Your task to perform on an android device: Clear the cart on bestbuy. Add sony triple a to the cart on bestbuy, then select checkout. Image 0: 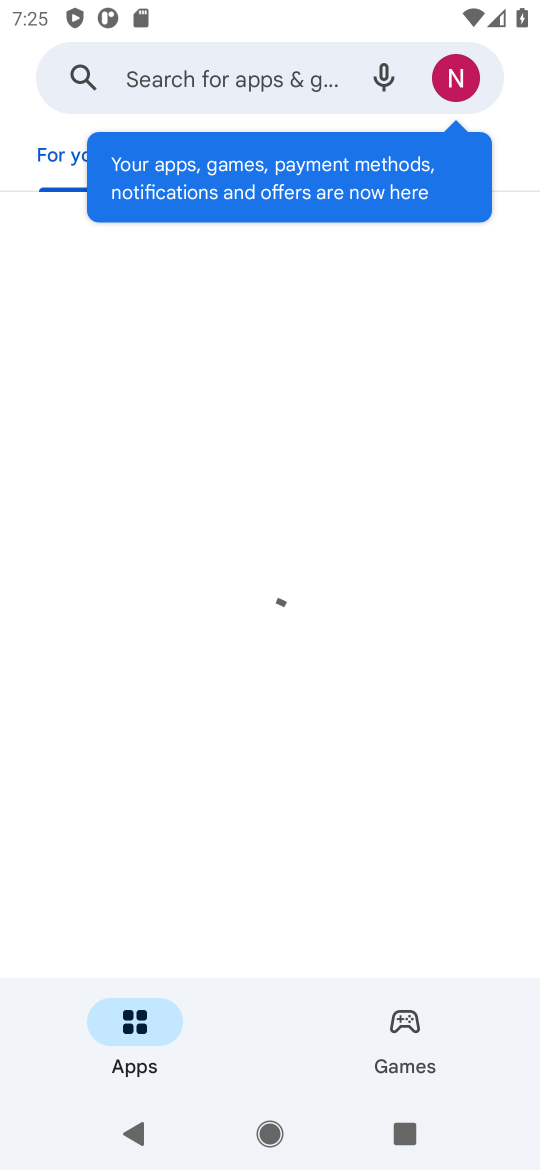
Step 0: press home button
Your task to perform on an android device: Clear the cart on bestbuy. Add sony triple a to the cart on bestbuy, then select checkout. Image 1: 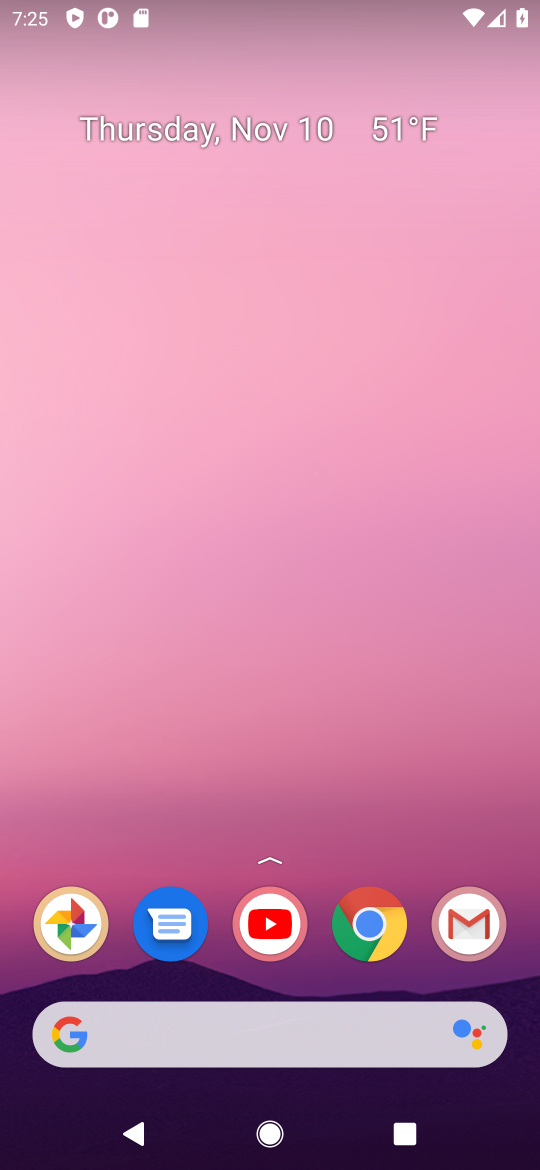
Step 1: click (367, 925)
Your task to perform on an android device: Clear the cart on bestbuy. Add sony triple a to the cart on bestbuy, then select checkout. Image 2: 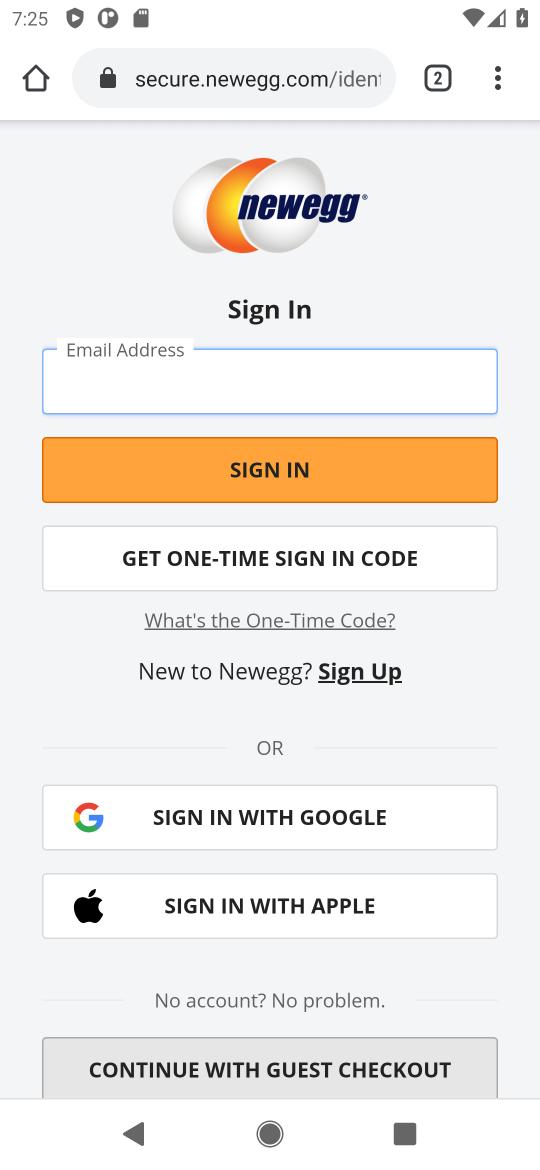
Step 2: click (228, 80)
Your task to perform on an android device: Clear the cart on bestbuy. Add sony triple a to the cart on bestbuy, then select checkout. Image 3: 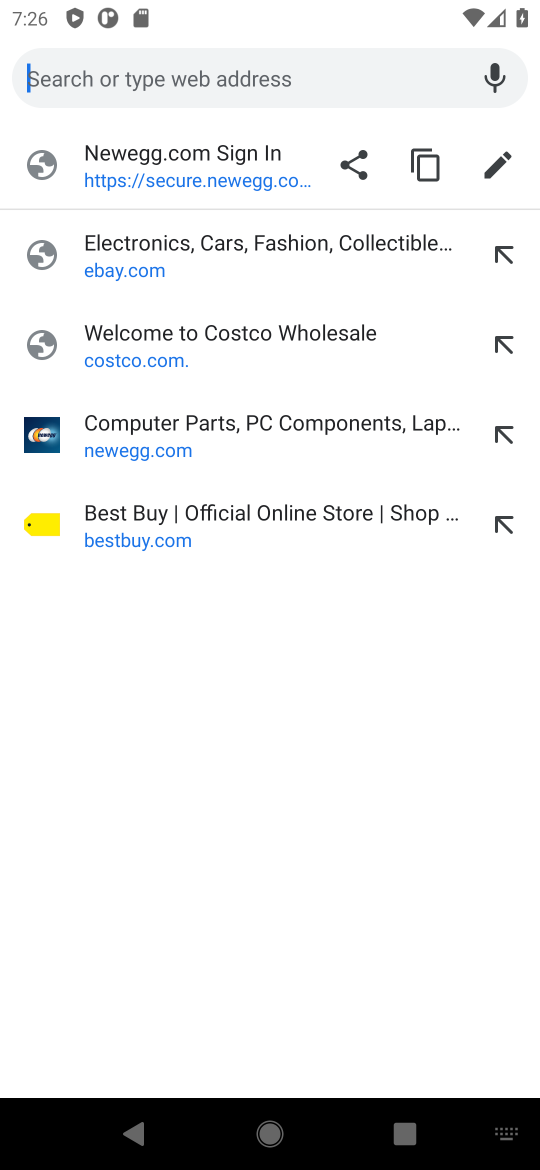
Step 3: click (147, 519)
Your task to perform on an android device: Clear the cart on bestbuy. Add sony triple a to the cart on bestbuy, then select checkout. Image 4: 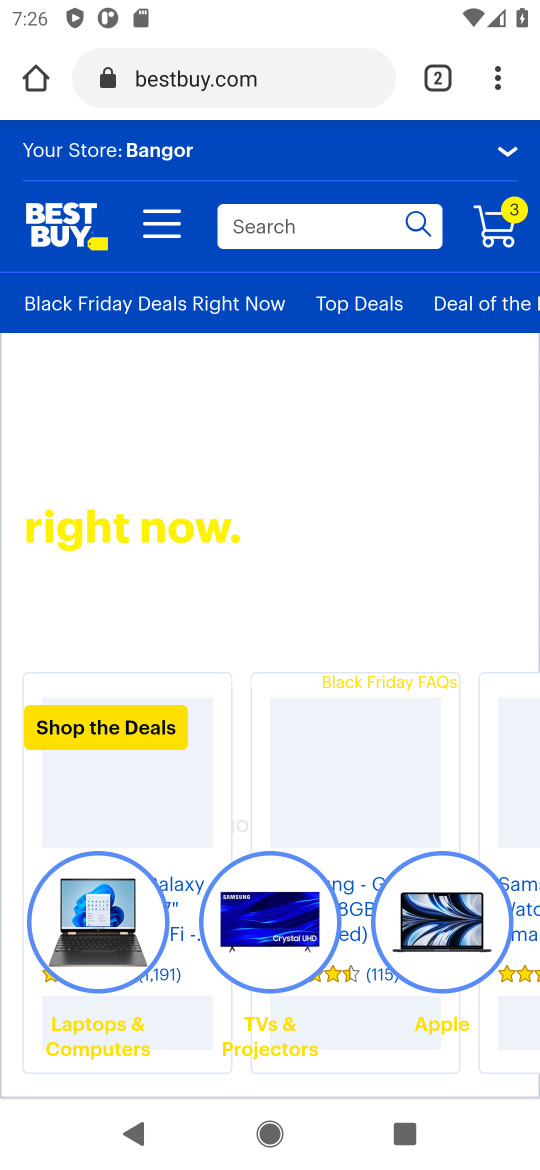
Step 4: click (502, 225)
Your task to perform on an android device: Clear the cart on bestbuy. Add sony triple a to the cart on bestbuy, then select checkout. Image 5: 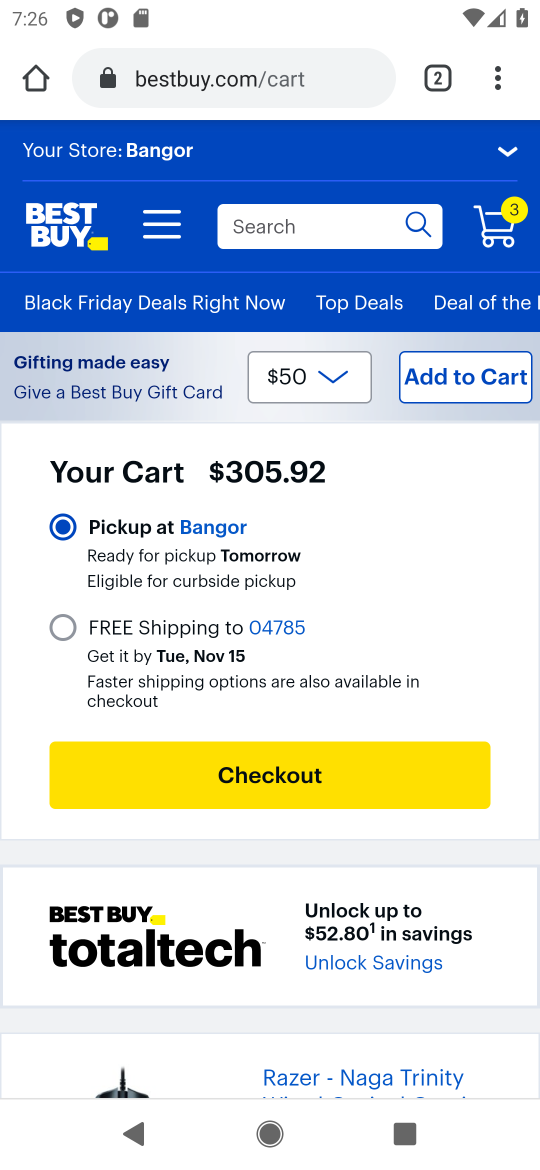
Step 5: drag from (493, 815) to (464, 344)
Your task to perform on an android device: Clear the cart on bestbuy. Add sony triple a to the cart on bestbuy, then select checkout. Image 6: 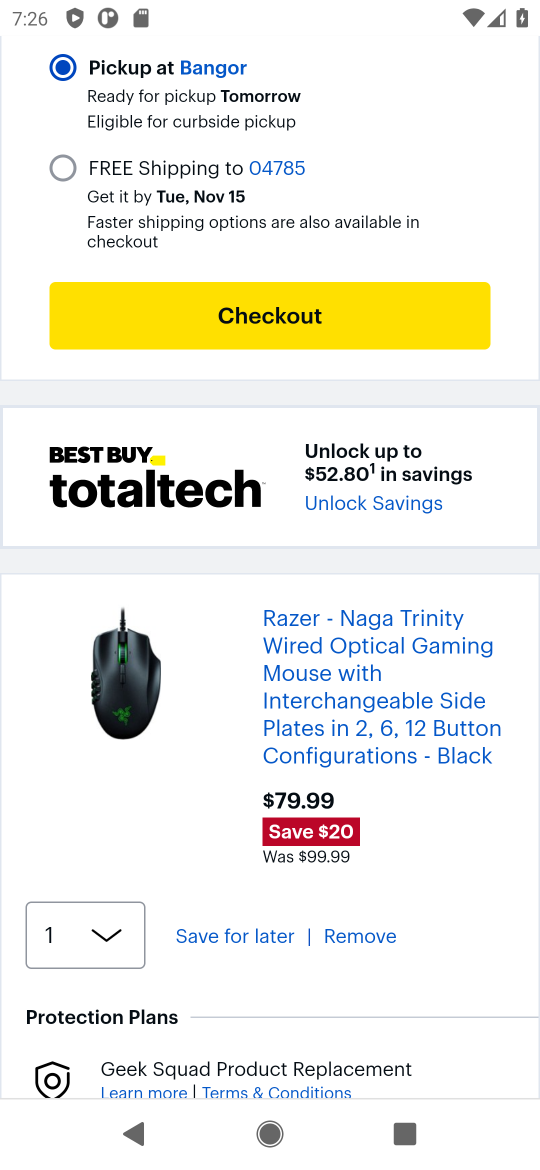
Step 6: click (341, 947)
Your task to perform on an android device: Clear the cart on bestbuy. Add sony triple a to the cart on bestbuy, then select checkout. Image 7: 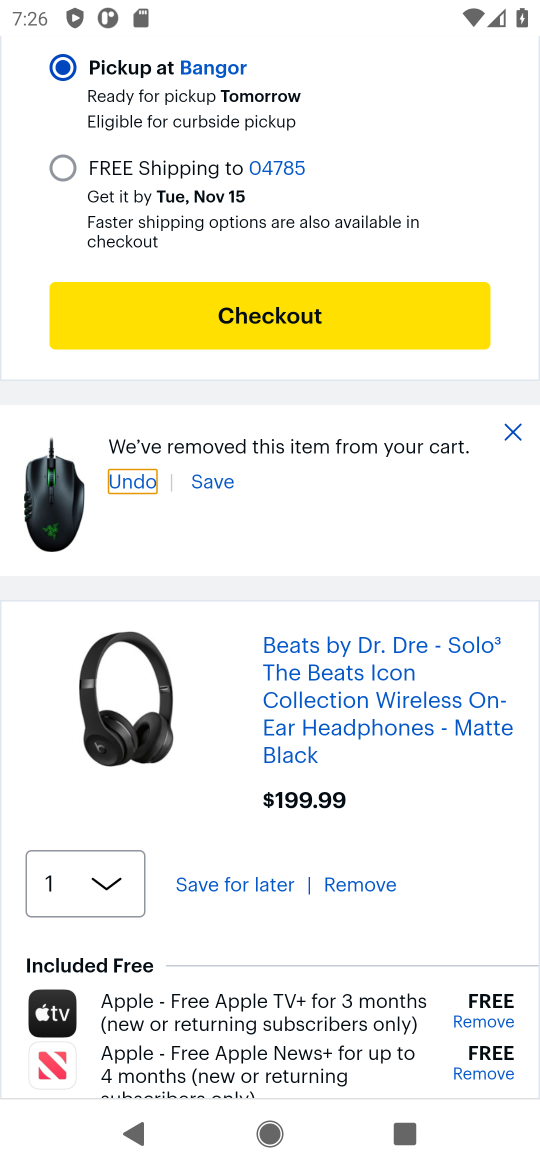
Step 7: click (343, 883)
Your task to perform on an android device: Clear the cart on bestbuy. Add sony triple a to the cart on bestbuy, then select checkout. Image 8: 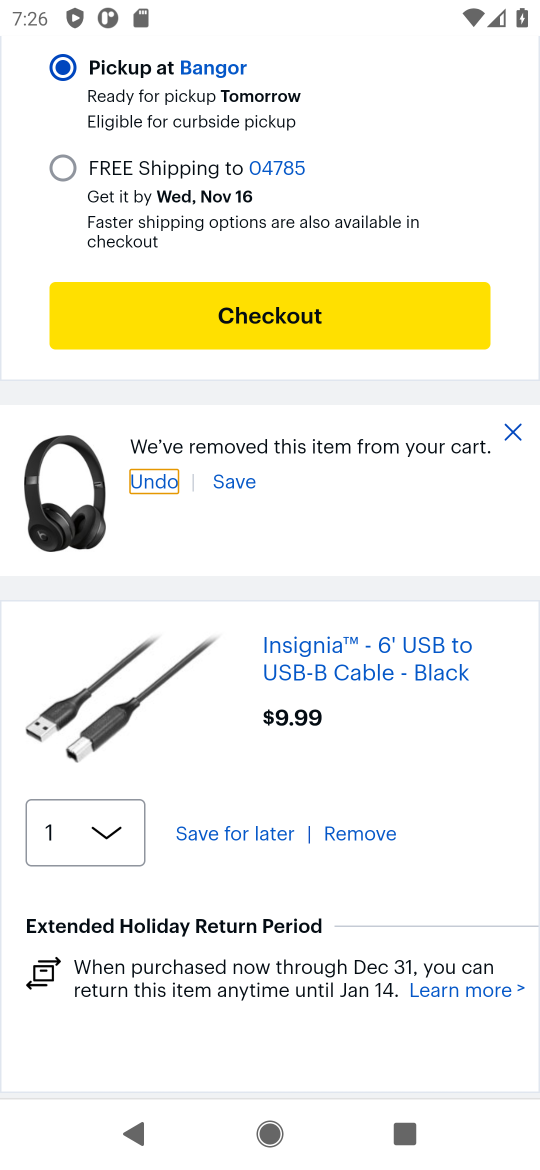
Step 8: click (353, 829)
Your task to perform on an android device: Clear the cart on bestbuy. Add sony triple a to the cart on bestbuy, then select checkout. Image 9: 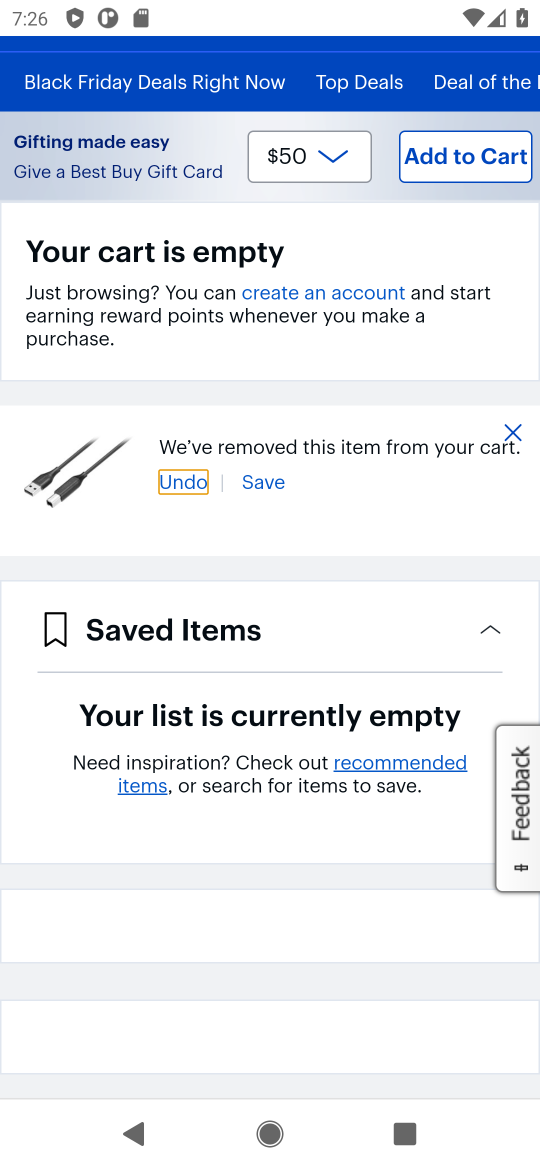
Step 9: drag from (330, 714) to (320, 875)
Your task to perform on an android device: Clear the cart on bestbuy. Add sony triple a to the cart on bestbuy, then select checkout. Image 10: 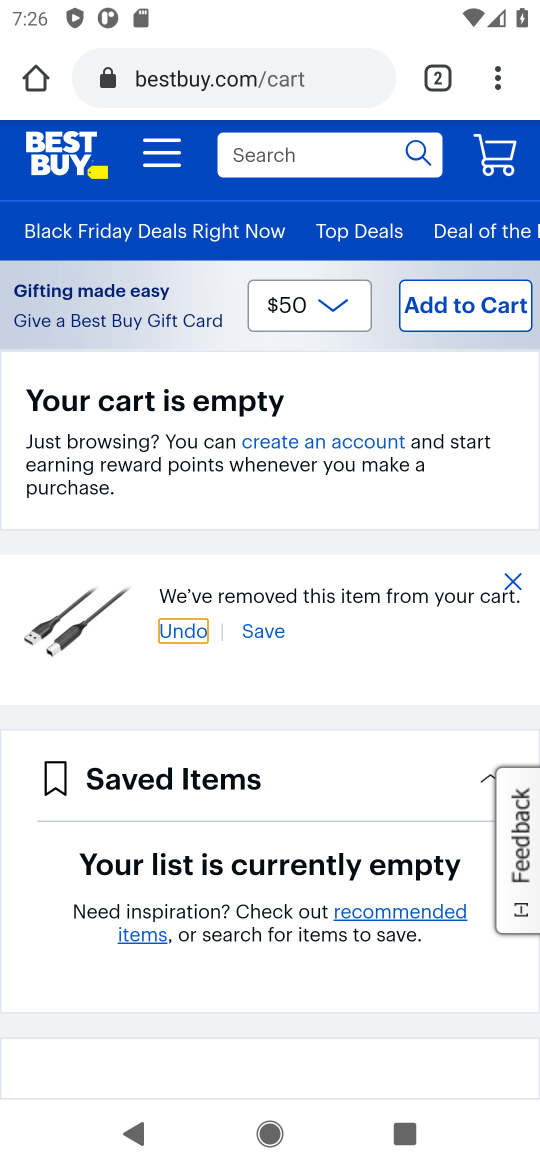
Step 10: click (289, 150)
Your task to perform on an android device: Clear the cart on bestbuy. Add sony triple a to the cart on bestbuy, then select checkout. Image 11: 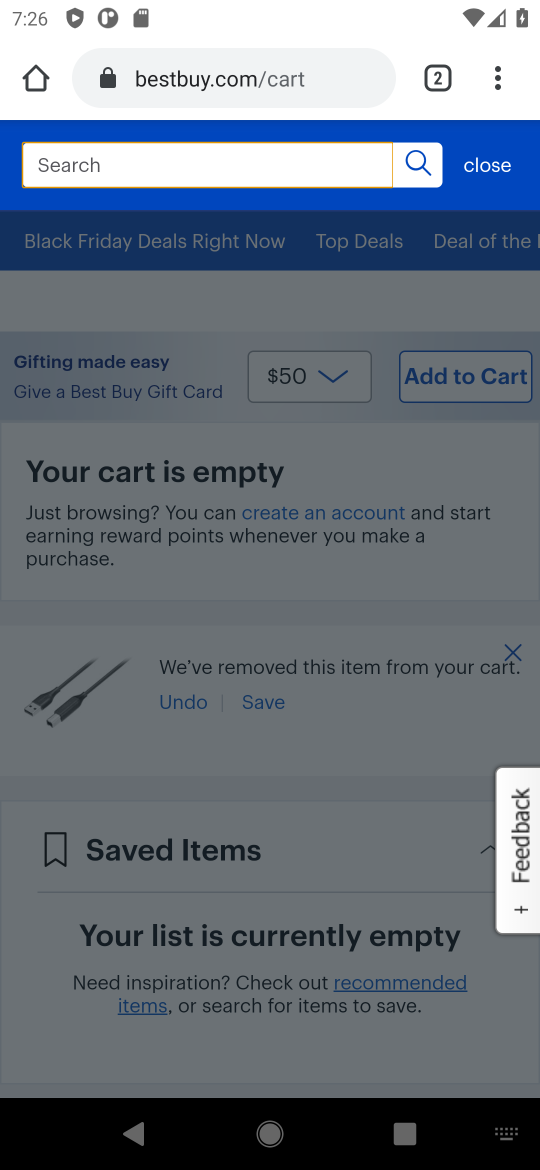
Step 11: type "sony triple a"
Your task to perform on an android device: Clear the cart on bestbuy. Add sony triple a to the cart on bestbuy, then select checkout. Image 12: 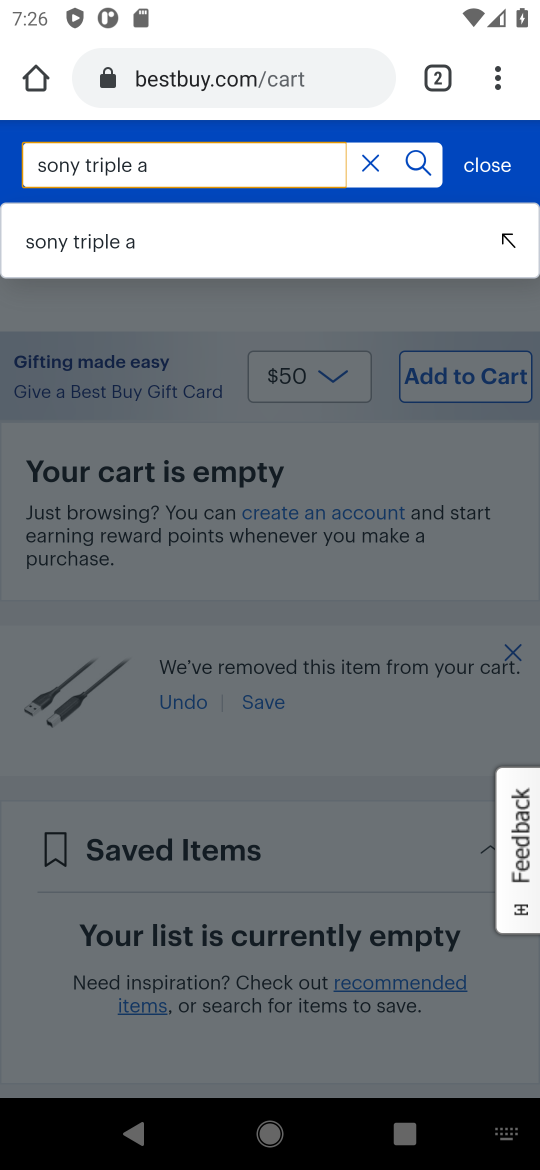
Step 12: click (105, 251)
Your task to perform on an android device: Clear the cart on bestbuy. Add sony triple a to the cart on bestbuy, then select checkout. Image 13: 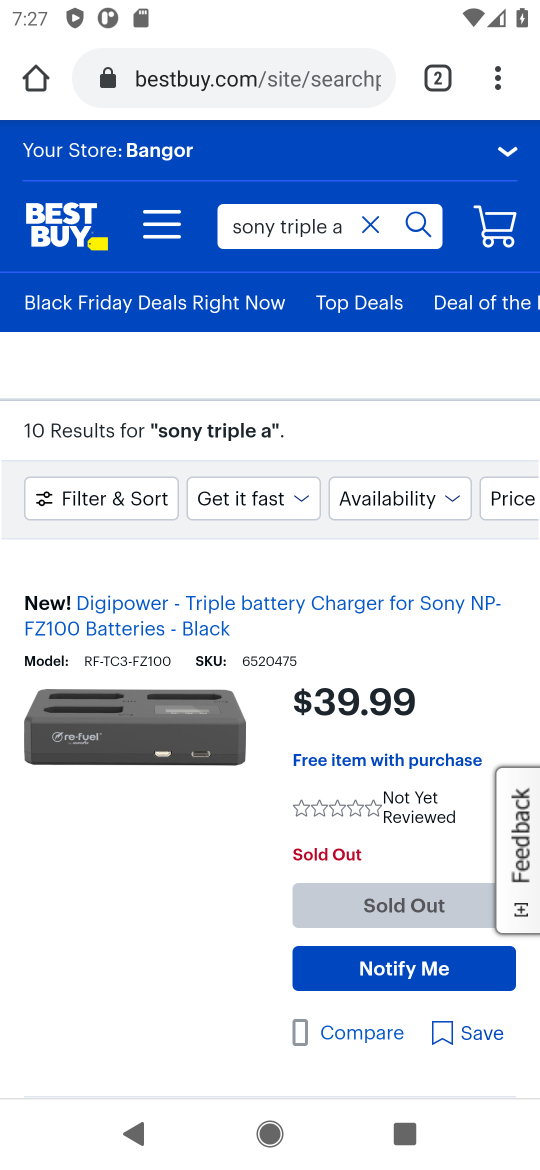
Step 13: task complete